Your task to perform on an android device: move an email to a new category in the gmail app Image 0: 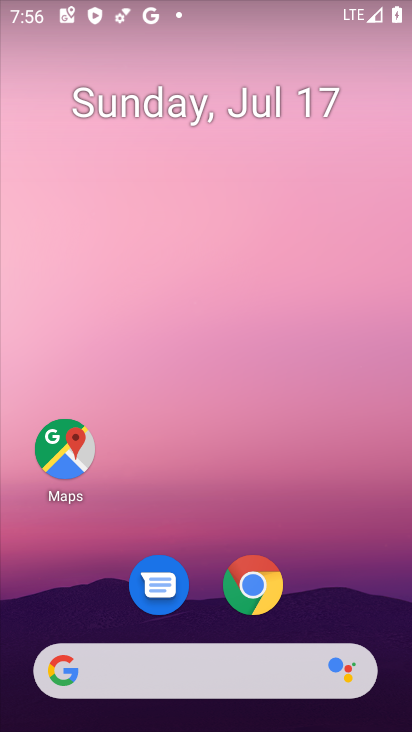
Step 0: drag from (309, 596) to (237, 1)
Your task to perform on an android device: move an email to a new category in the gmail app Image 1: 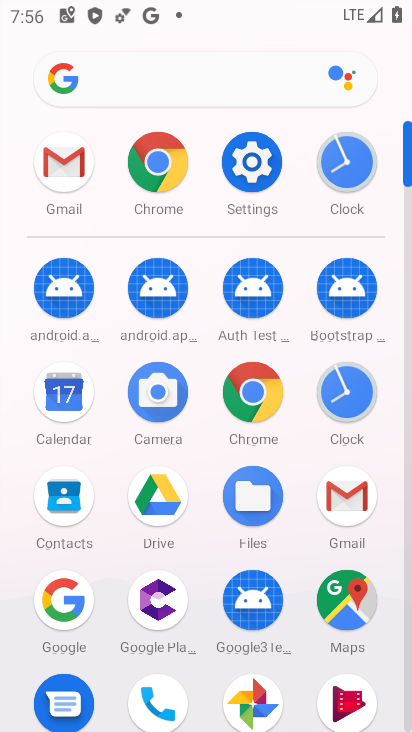
Step 1: click (66, 169)
Your task to perform on an android device: move an email to a new category in the gmail app Image 2: 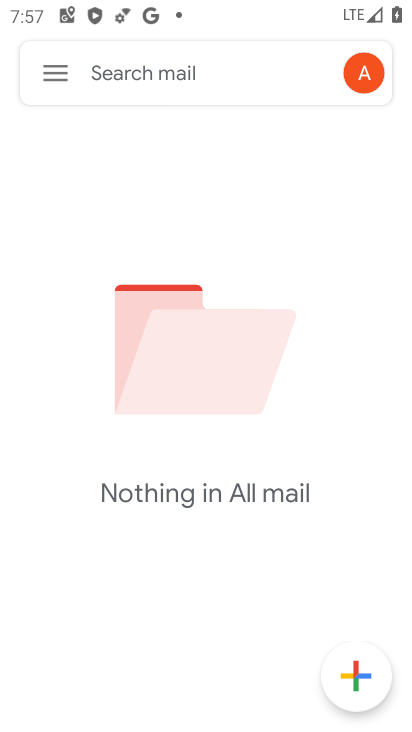
Step 2: task complete